Your task to perform on an android device: Open Google Chrome and open the bookmarks view Image 0: 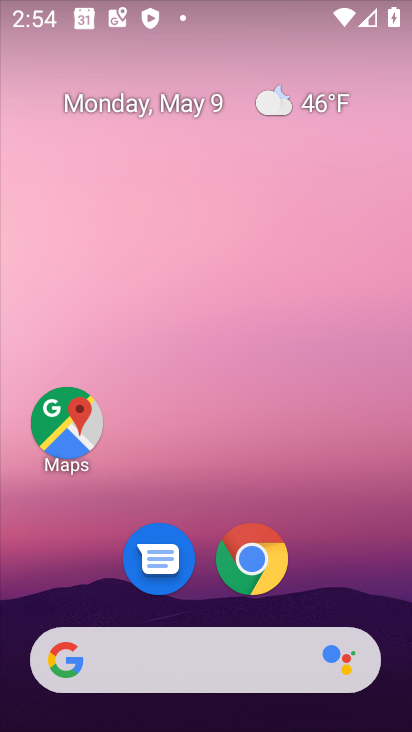
Step 0: click (241, 563)
Your task to perform on an android device: Open Google Chrome and open the bookmarks view Image 1: 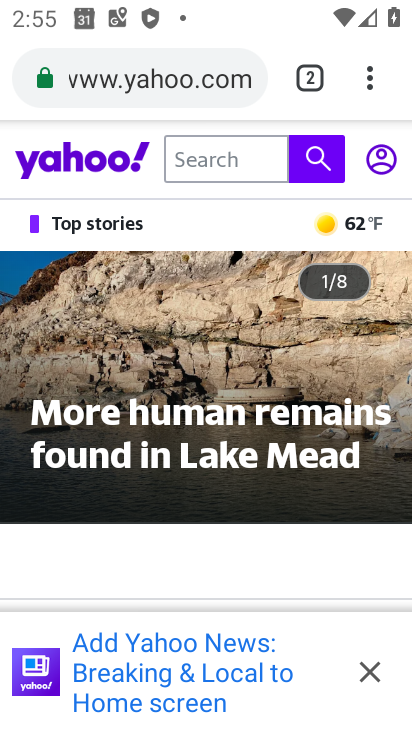
Step 1: click (372, 79)
Your task to perform on an android device: Open Google Chrome and open the bookmarks view Image 2: 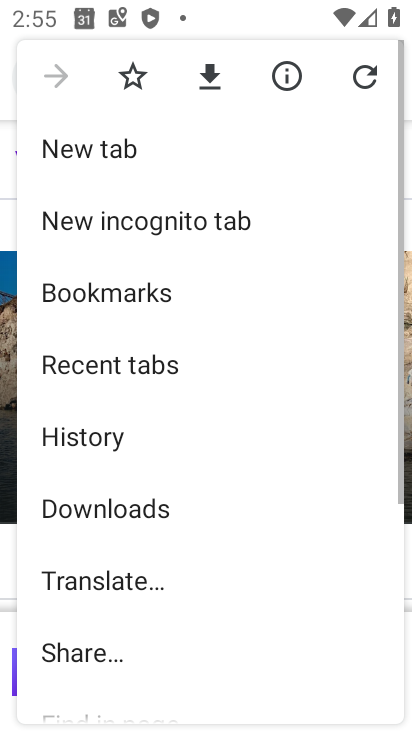
Step 2: click (191, 294)
Your task to perform on an android device: Open Google Chrome and open the bookmarks view Image 3: 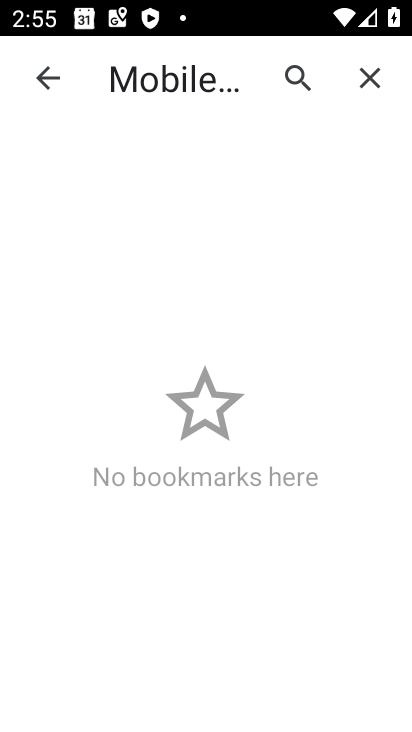
Step 3: task complete